Your task to perform on an android device: check google app version Image 0: 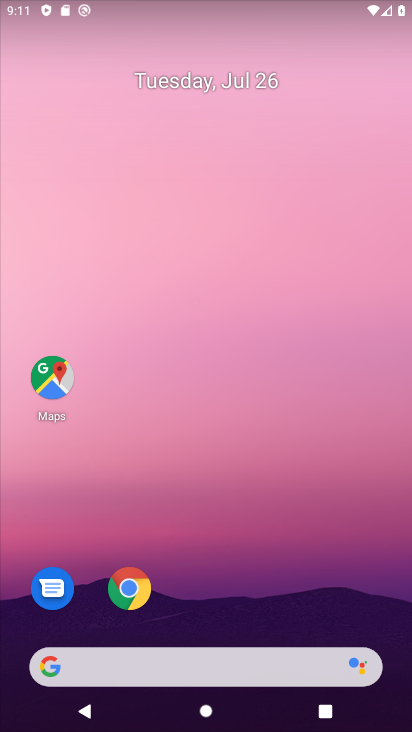
Step 0: drag from (182, 644) to (225, 165)
Your task to perform on an android device: check google app version Image 1: 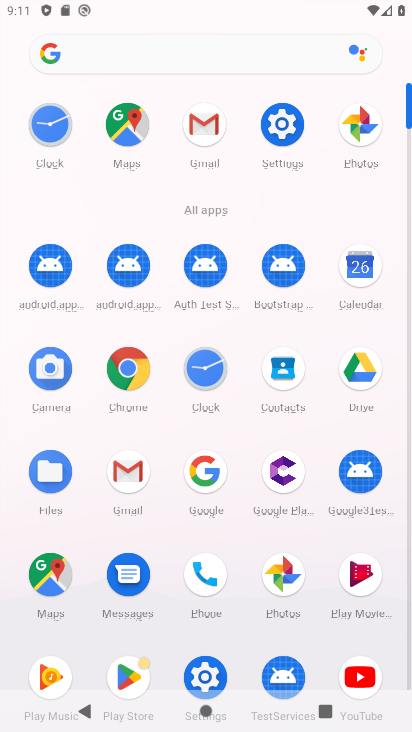
Step 1: click (215, 478)
Your task to perform on an android device: check google app version Image 2: 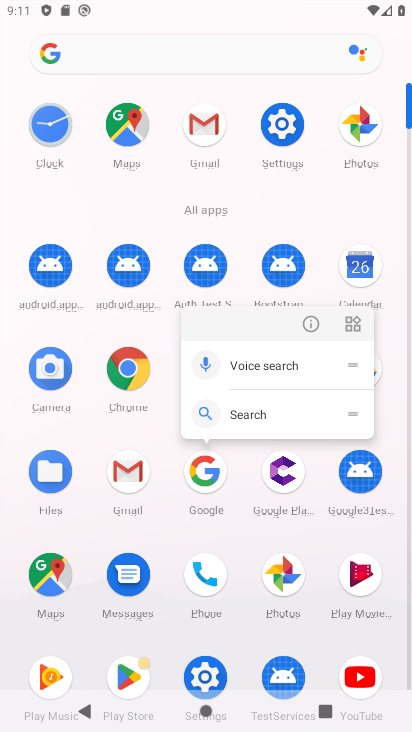
Step 2: click (311, 317)
Your task to perform on an android device: check google app version Image 3: 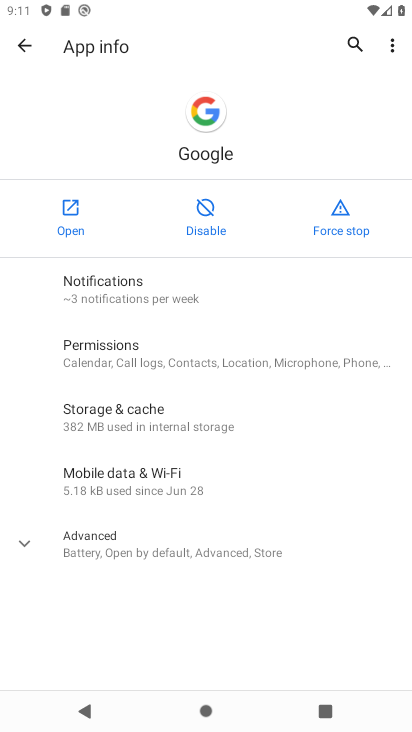
Step 3: drag from (219, 579) to (209, 291)
Your task to perform on an android device: check google app version Image 4: 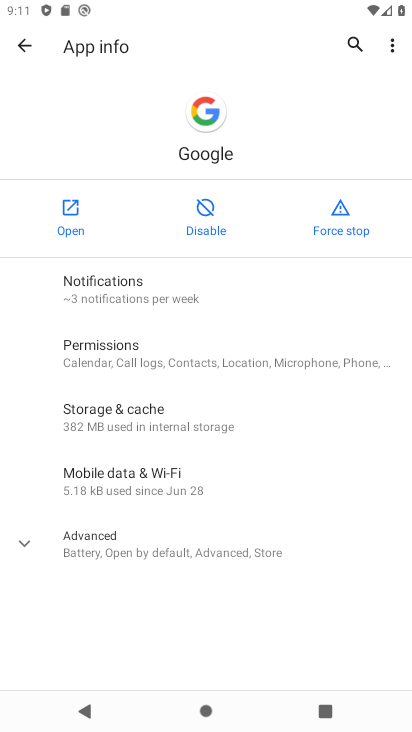
Step 4: click (182, 556)
Your task to perform on an android device: check google app version Image 5: 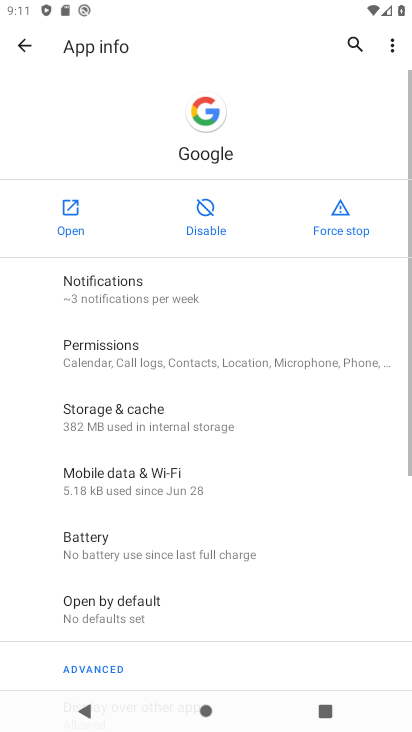
Step 5: drag from (216, 591) to (228, 234)
Your task to perform on an android device: check google app version Image 6: 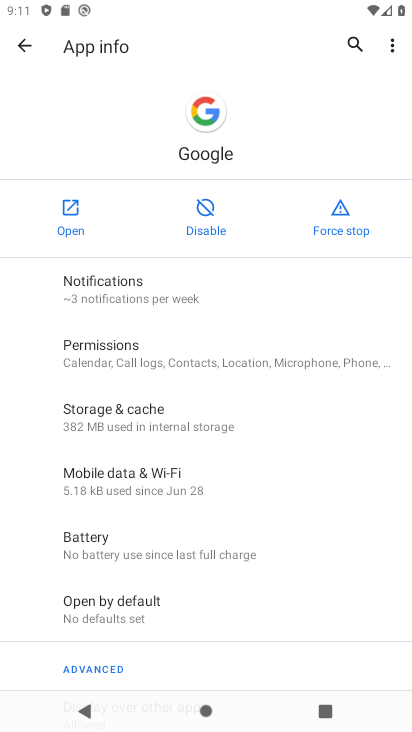
Step 6: drag from (110, 592) to (169, 123)
Your task to perform on an android device: check google app version Image 7: 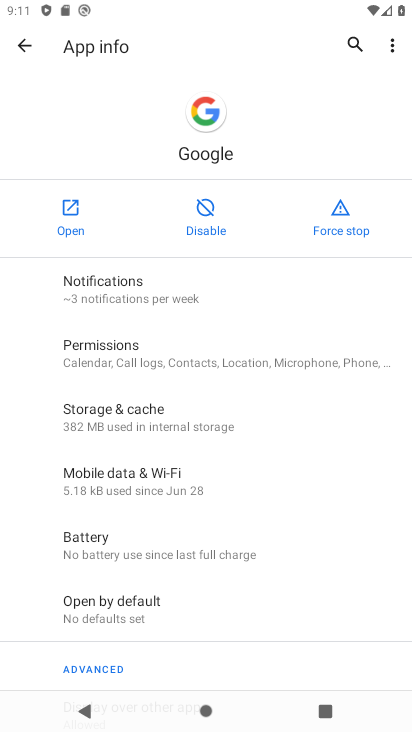
Step 7: click (110, 662)
Your task to perform on an android device: check google app version Image 8: 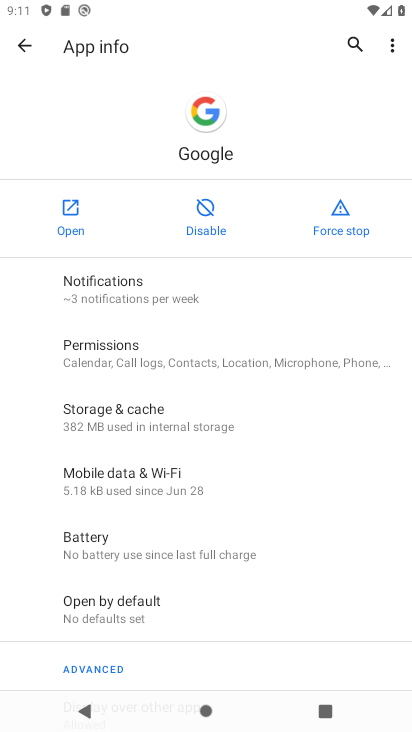
Step 8: task complete